Your task to perform on an android device: add a label to a message in the gmail app Image 0: 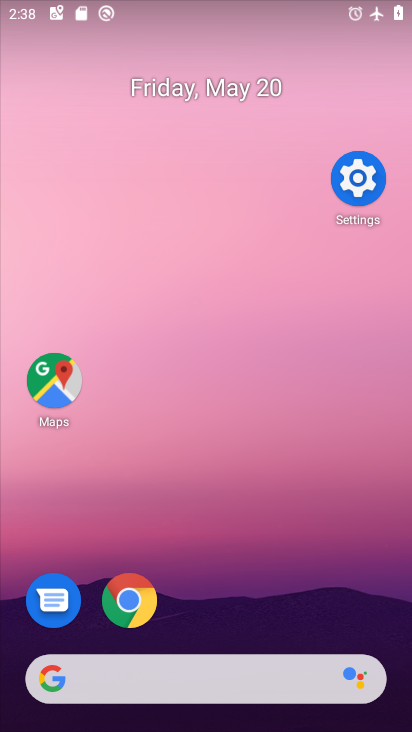
Step 0: drag from (233, 604) to (296, 18)
Your task to perform on an android device: add a label to a message in the gmail app Image 1: 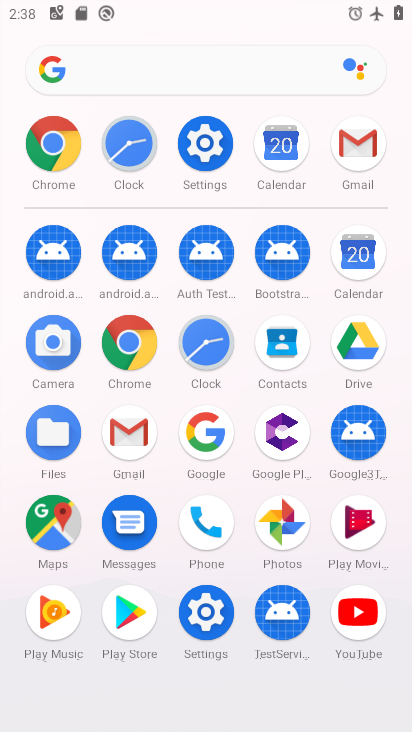
Step 1: click (132, 449)
Your task to perform on an android device: add a label to a message in the gmail app Image 2: 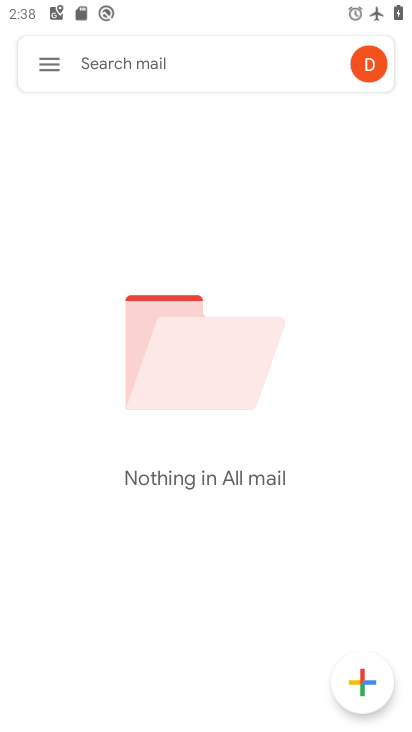
Step 2: task complete